Your task to perform on an android device: What's the weather today? Image 0: 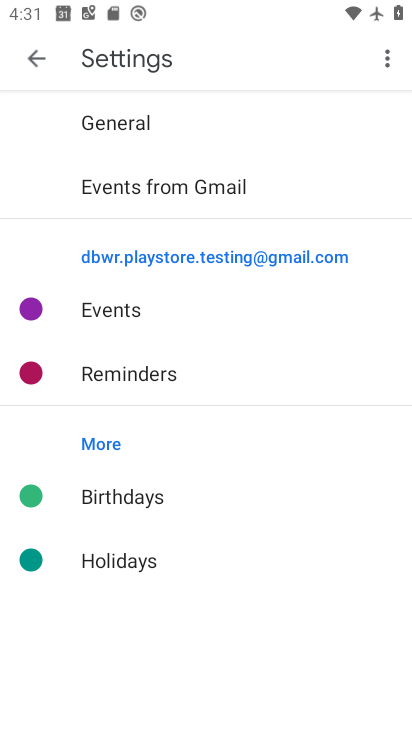
Step 0: press home button
Your task to perform on an android device: What's the weather today? Image 1: 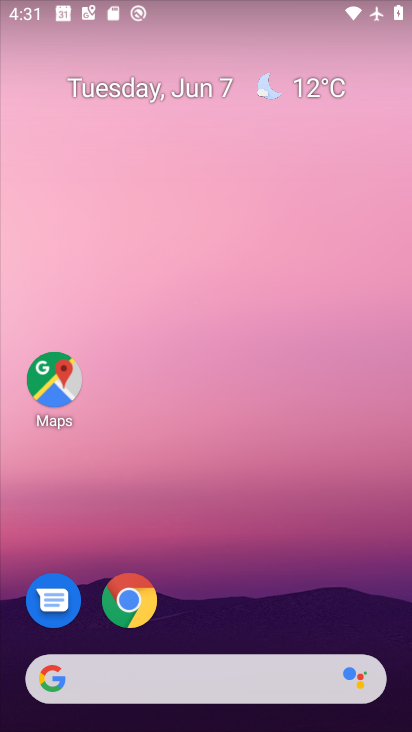
Step 1: drag from (247, 534) to (219, 171)
Your task to perform on an android device: What's the weather today? Image 2: 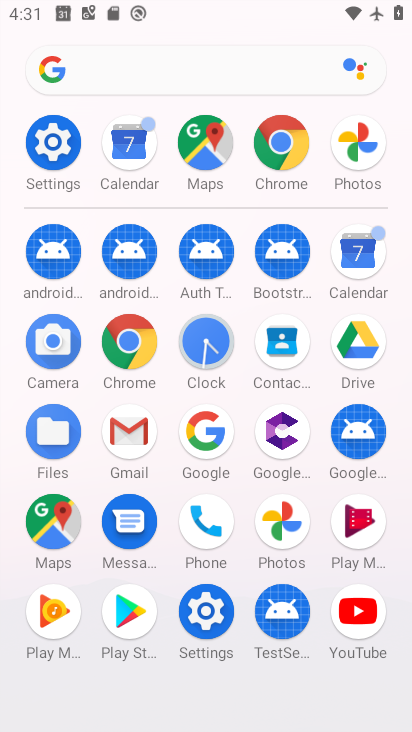
Step 2: click (278, 141)
Your task to perform on an android device: What's the weather today? Image 3: 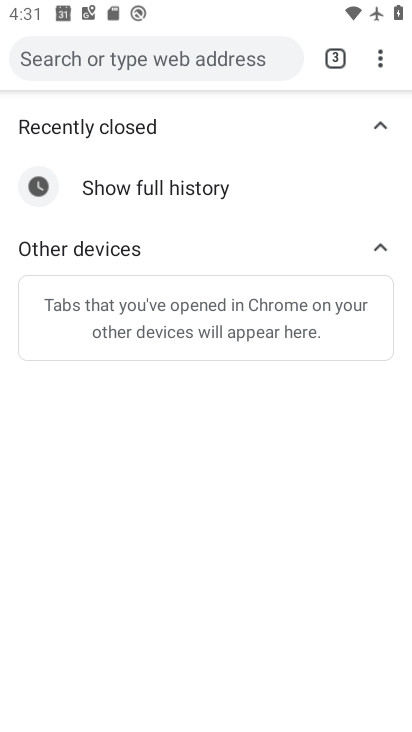
Step 3: press home button
Your task to perform on an android device: What's the weather today? Image 4: 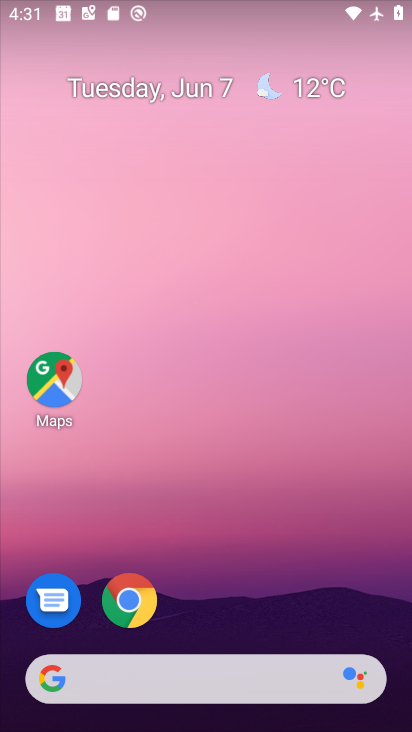
Step 4: click (323, 90)
Your task to perform on an android device: What's the weather today? Image 5: 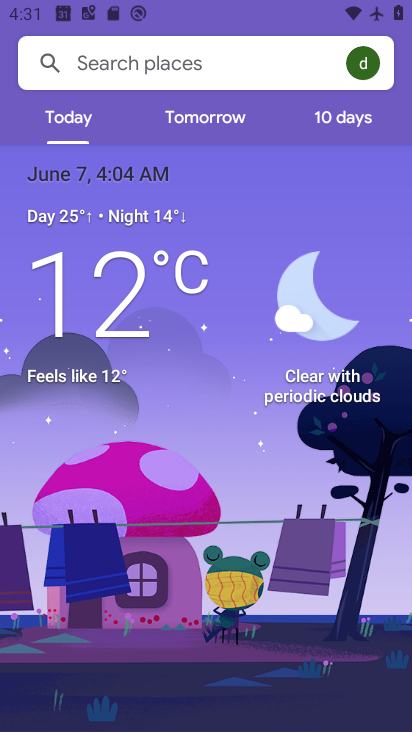
Step 5: task complete